Your task to perform on an android device: turn smart compose on in the gmail app Image 0: 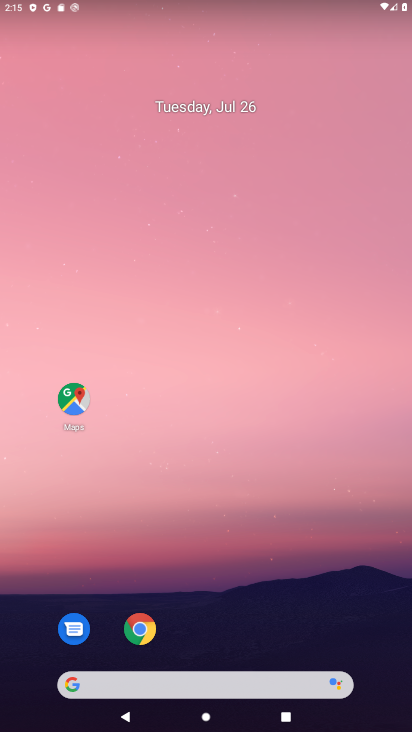
Step 0: drag from (284, 626) to (199, 62)
Your task to perform on an android device: turn smart compose on in the gmail app Image 1: 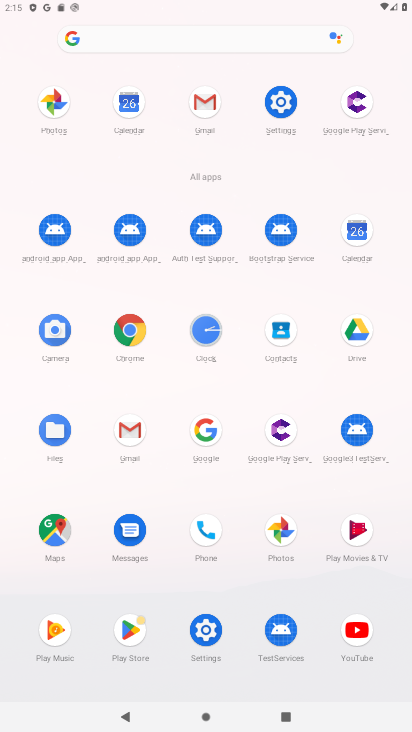
Step 1: click (204, 104)
Your task to perform on an android device: turn smart compose on in the gmail app Image 2: 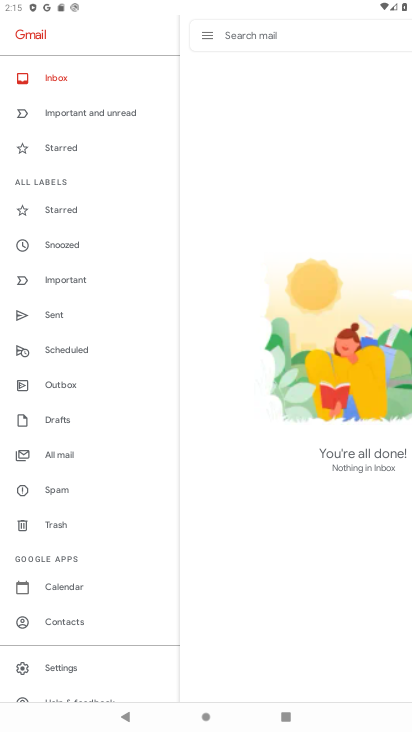
Step 2: click (84, 665)
Your task to perform on an android device: turn smart compose on in the gmail app Image 3: 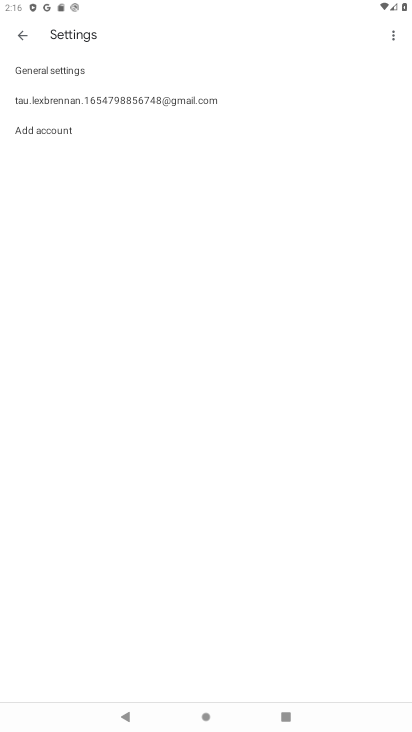
Step 3: click (164, 95)
Your task to perform on an android device: turn smart compose on in the gmail app Image 4: 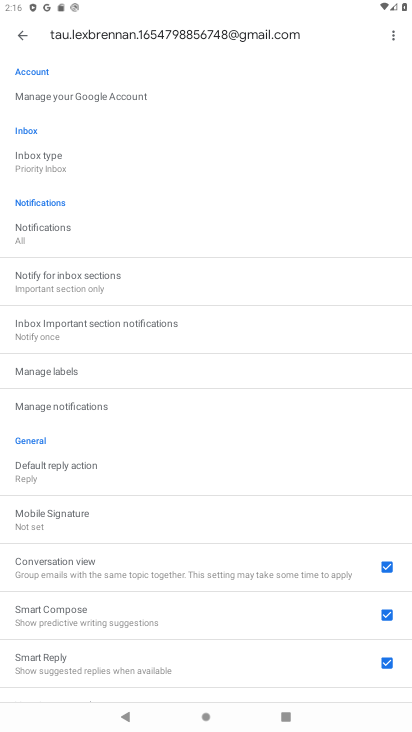
Step 4: task complete